Your task to perform on an android device: Open privacy settings Image 0: 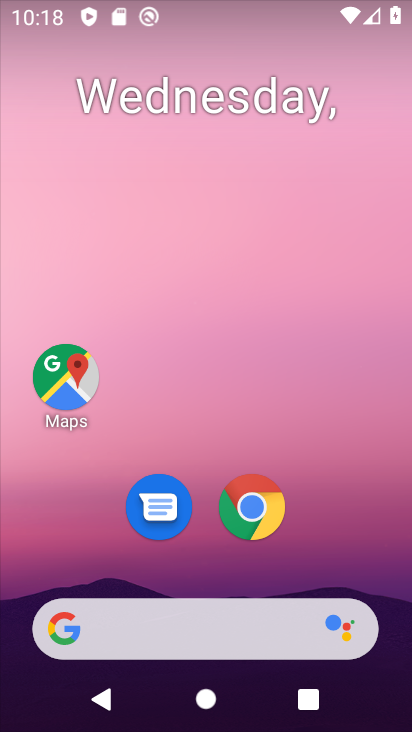
Step 0: drag from (256, 626) to (330, 204)
Your task to perform on an android device: Open privacy settings Image 1: 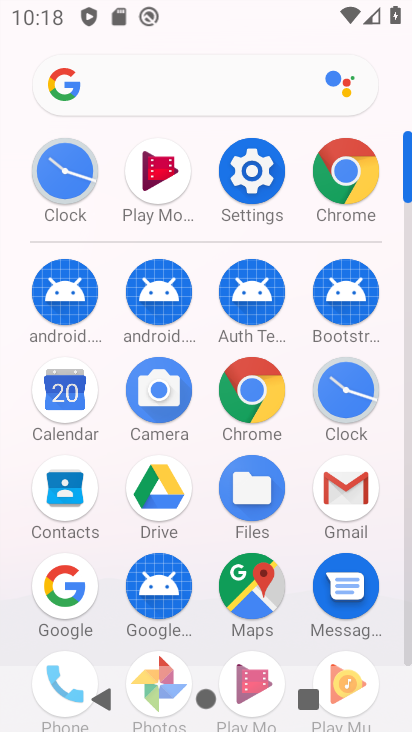
Step 1: click (266, 181)
Your task to perform on an android device: Open privacy settings Image 2: 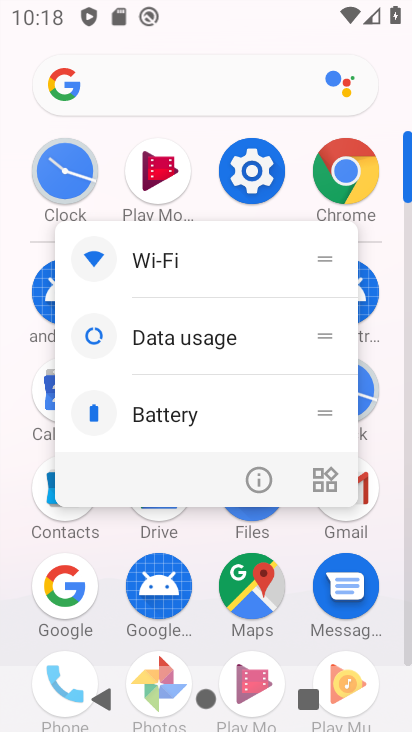
Step 2: click (266, 182)
Your task to perform on an android device: Open privacy settings Image 3: 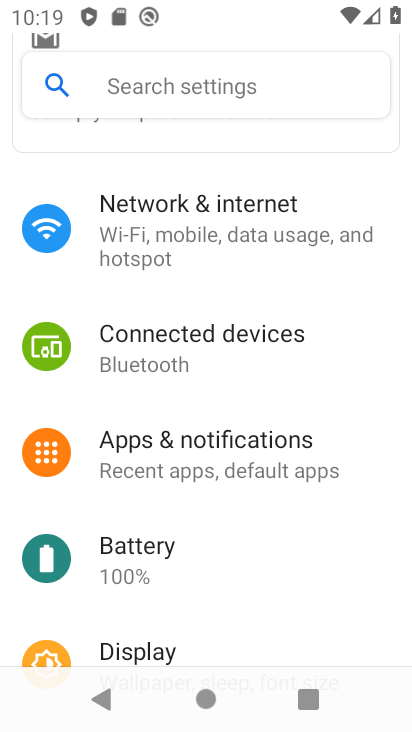
Step 3: drag from (159, 490) to (225, 332)
Your task to perform on an android device: Open privacy settings Image 4: 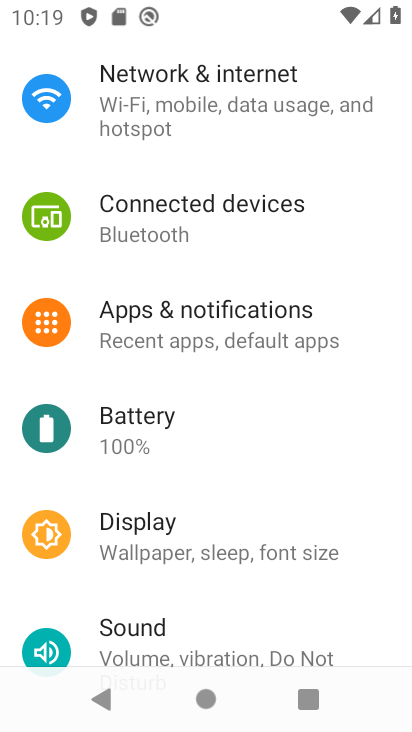
Step 4: drag from (161, 540) to (268, 342)
Your task to perform on an android device: Open privacy settings Image 5: 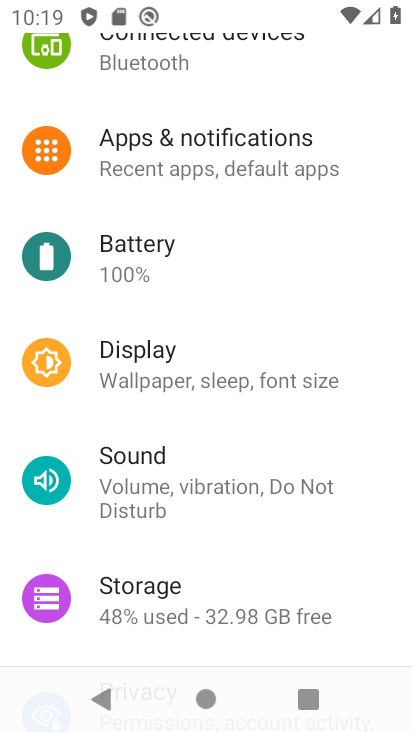
Step 5: drag from (152, 583) to (224, 397)
Your task to perform on an android device: Open privacy settings Image 6: 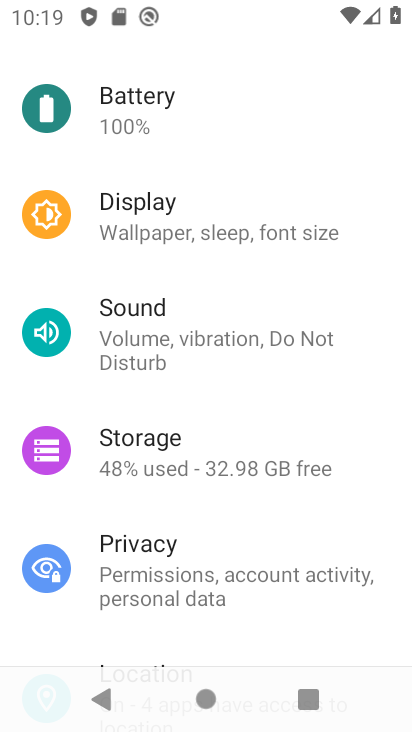
Step 6: click (147, 563)
Your task to perform on an android device: Open privacy settings Image 7: 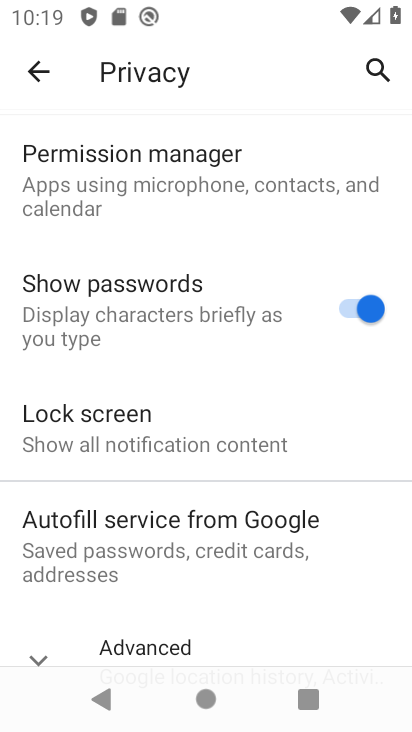
Step 7: task complete